Your task to perform on an android device: Show me popular games on the Play Store Image 0: 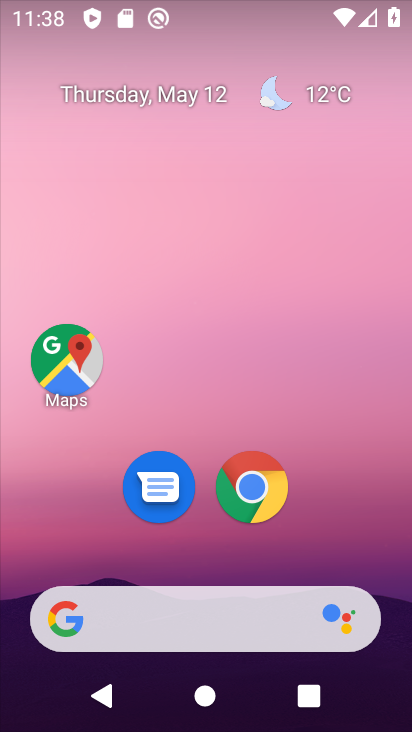
Step 0: drag from (212, 496) to (272, 0)
Your task to perform on an android device: Show me popular games on the Play Store Image 1: 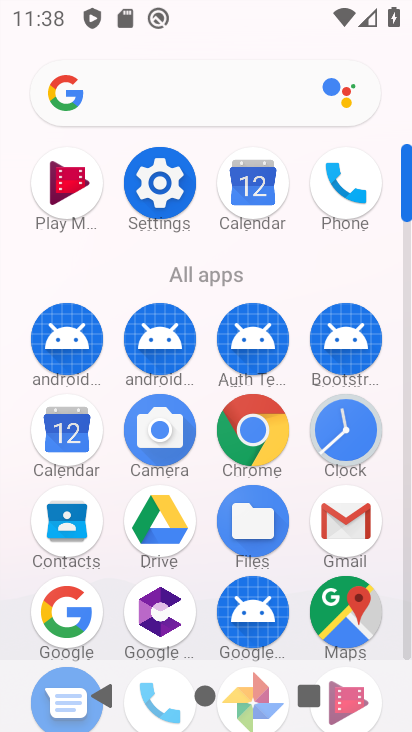
Step 1: drag from (163, 634) to (204, 146)
Your task to perform on an android device: Show me popular games on the Play Store Image 2: 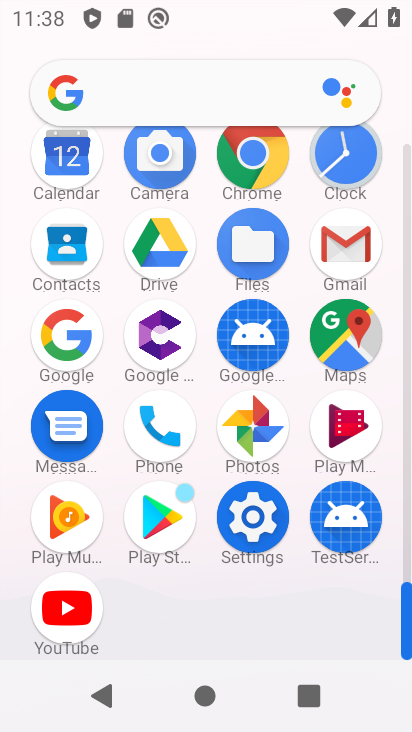
Step 2: click (171, 522)
Your task to perform on an android device: Show me popular games on the Play Store Image 3: 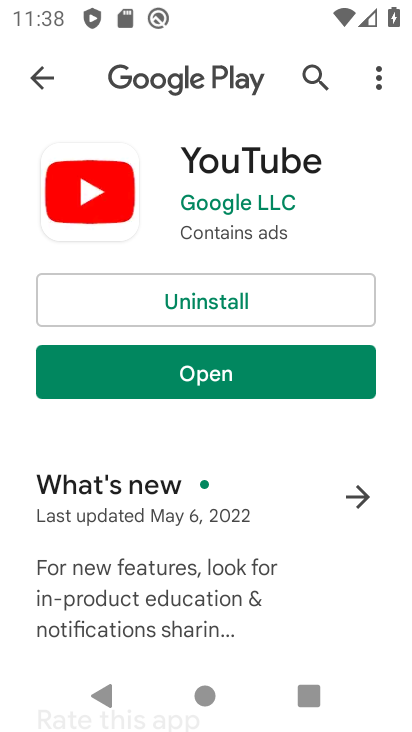
Step 3: click (34, 55)
Your task to perform on an android device: Show me popular games on the Play Store Image 4: 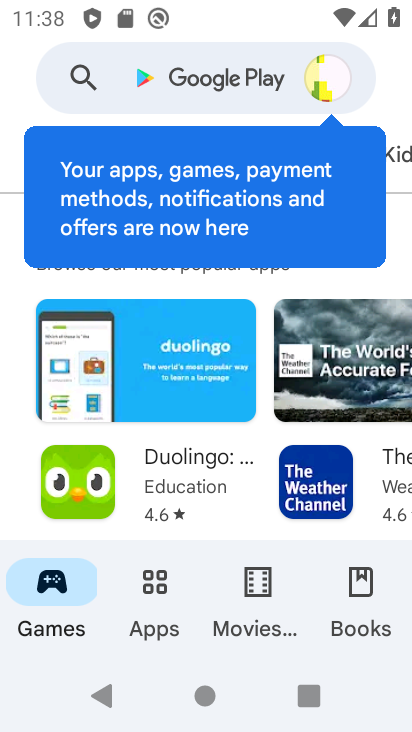
Step 4: click (70, 607)
Your task to perform on an android device: Show me popular games on the Play Store Image 5: 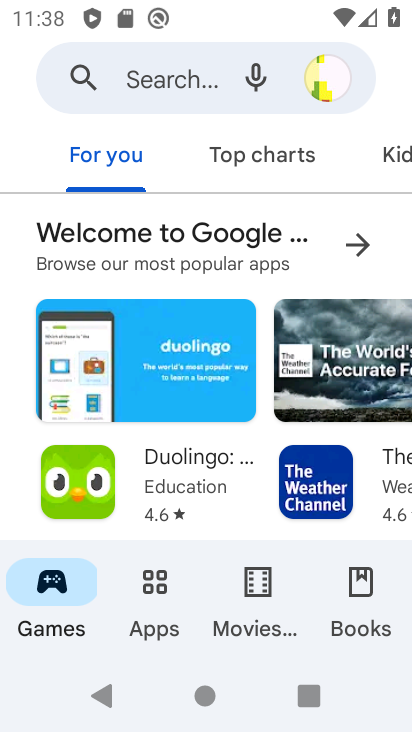
Step 5: drag from (206, 497) to (292, 17)
Your task to perform on an android device: Show me popular games on the Play Store Image 6: 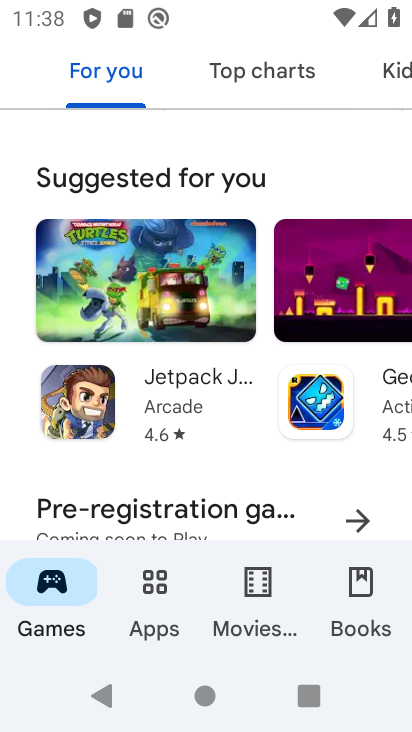
Step 6: drag from (172, 489) to (242, 10)
Your task to perform on an android device: Show me popular games on the Play Store Image 7: 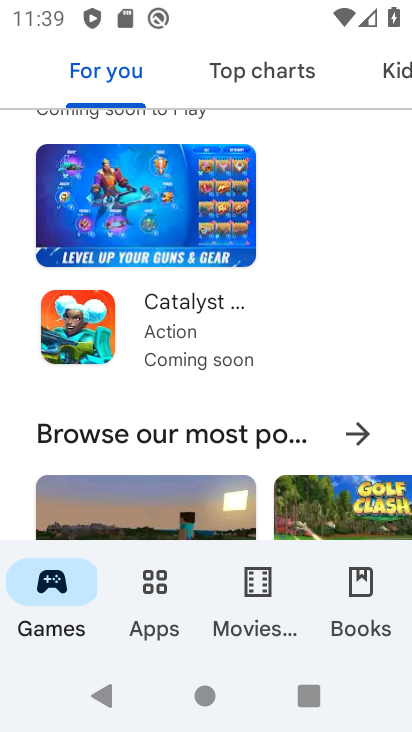
Step 7: click (333, 452)
Your task to perform on an android device: Show me popular games on the Play Store Image 8: 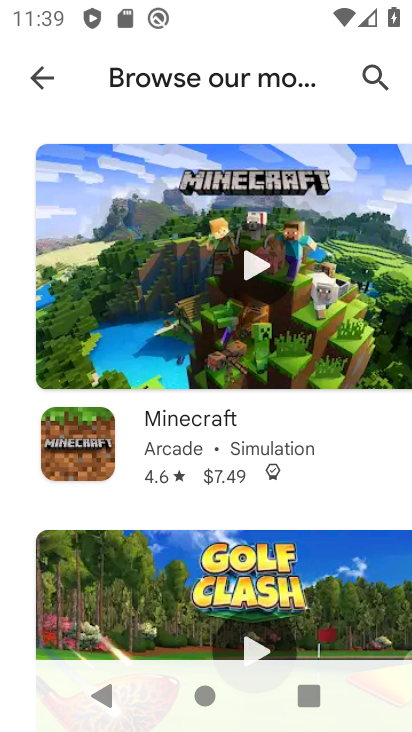
Step 8: task complete